Your task to perform on an android device: turn vacation reply on in the gmail app Image 0: 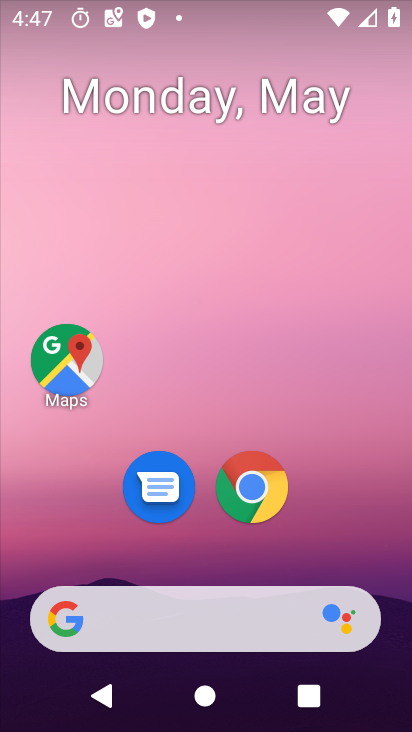
Step 0: drag from (199, 537) to (247, 240)
Your task to perform on an android device: turn vacation reply on in the gmail app Image 1: 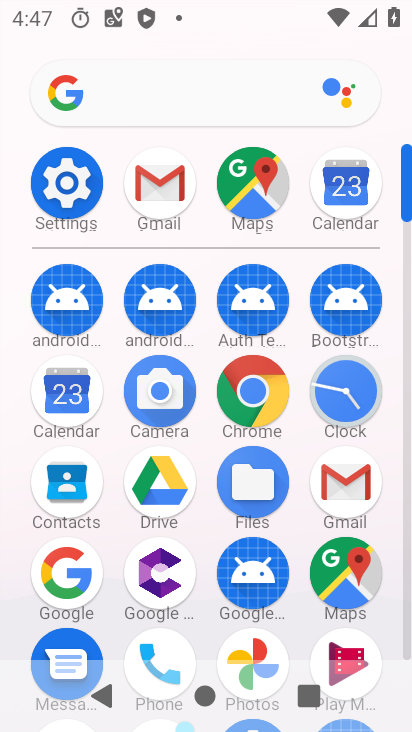
Step 1: click (150, 202)
Your task to perform on an android device: turn vacation reply on in the gmail app Image 2: 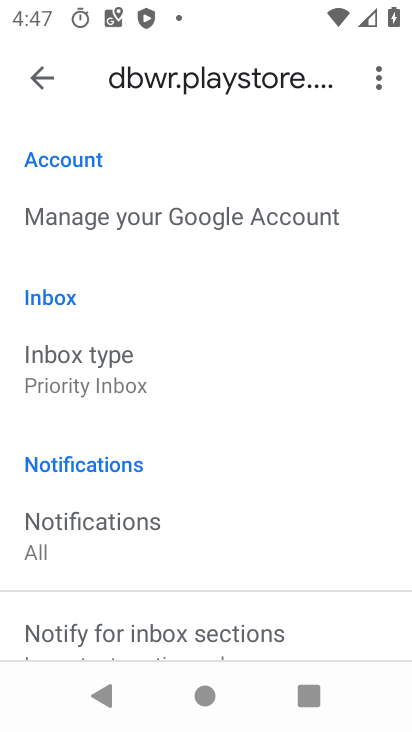
Step 2: drag from (98, 618) to (145, 248)
Your task to perform on an android device: turn vacation reply on in the gmail app Image 3: 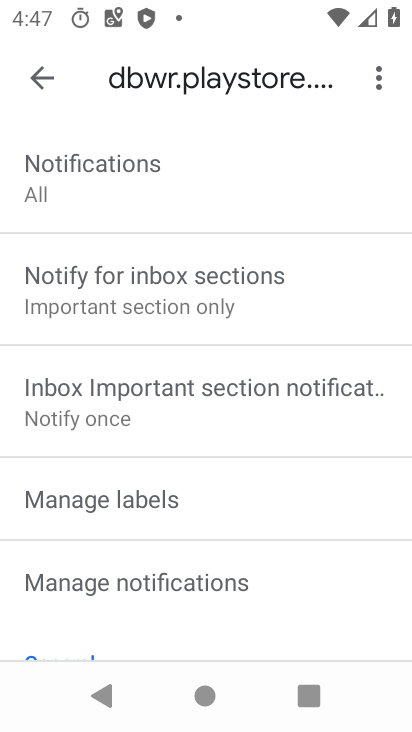
Step 3: drag from (94, 630) to (152, 199)
Your task to perform on an android device: turn vacation reply on in the gmail app Image 4: 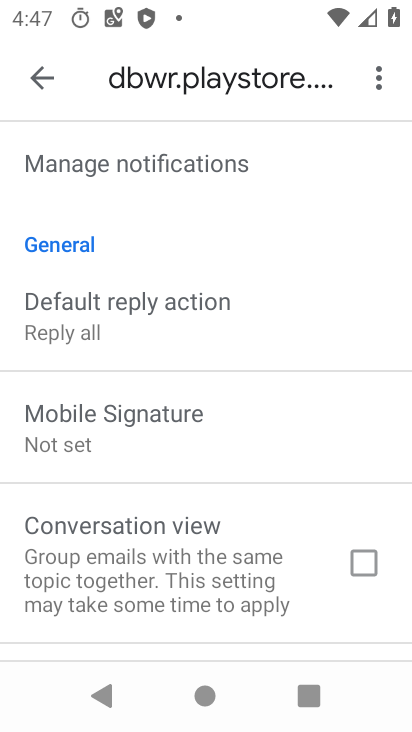
Step 4: drag from (103, 582) to (146, 231)
Your task to perform on an android device: turn vacation reply on in the gmail app Image 5: 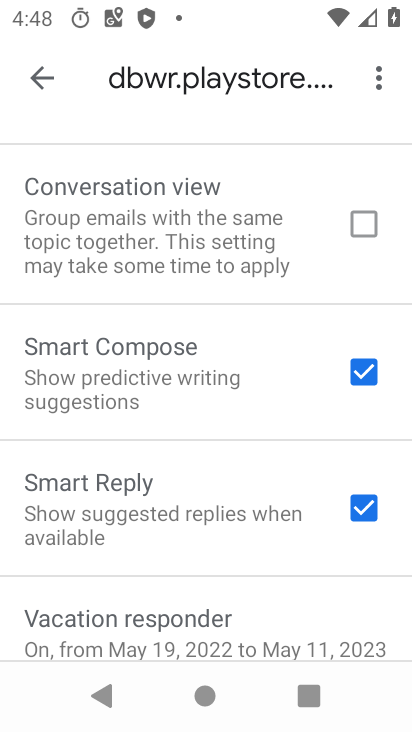
Step 5: click (93, 624)
Your task to perform on an android device: turn vacation reply on in the gmail app Image 6: 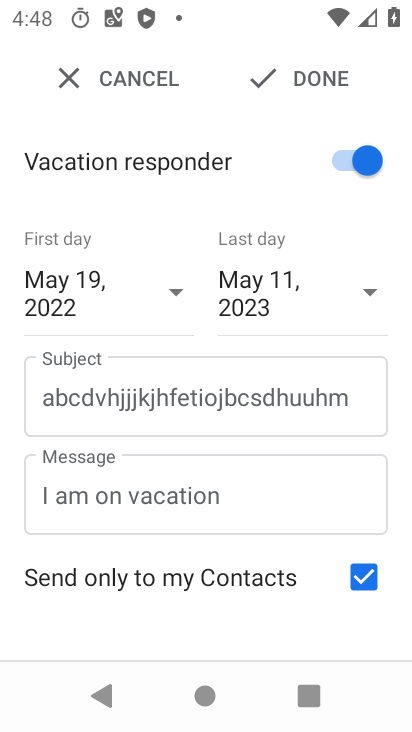
Step 6: click (309, 87)
Your task to perform on an android device: turn vacation reply on in the gmail app Image 7: 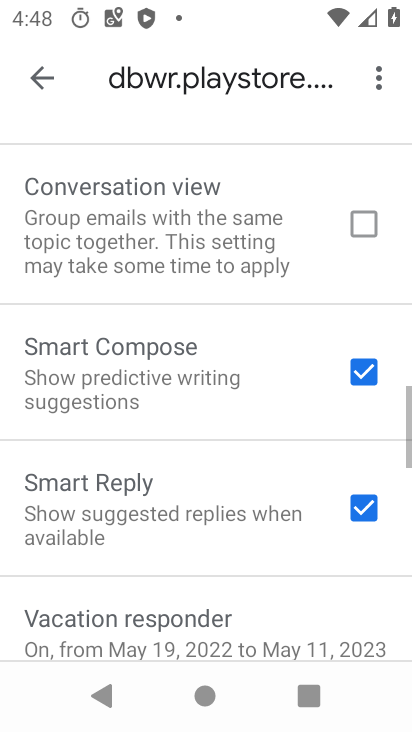
Step 7: task complete